Your task to perform on an android device: Play the last video I watched on Youtube Image 0: 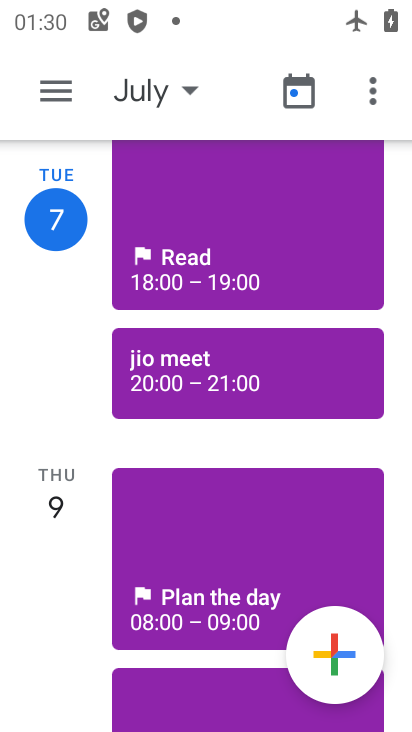
Step 0: press home button
Your task to perform on an android device: Play the last video I watched on Youtube Image 1: 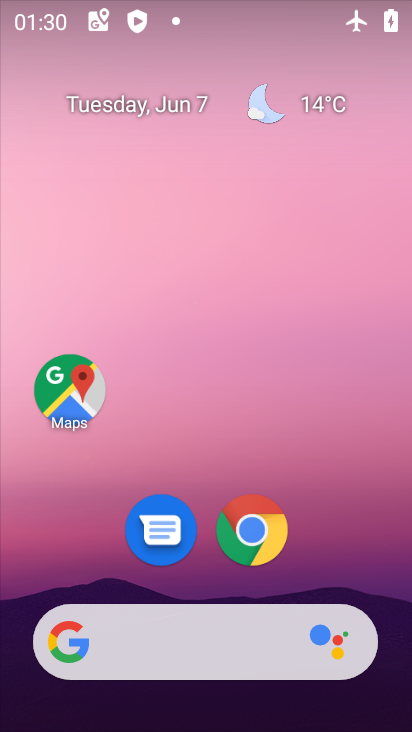
Step 1: drag from (244, 616) to (256, 235)
Your task to perform on an android device: Play the last video I watched on Youtube Image 2: 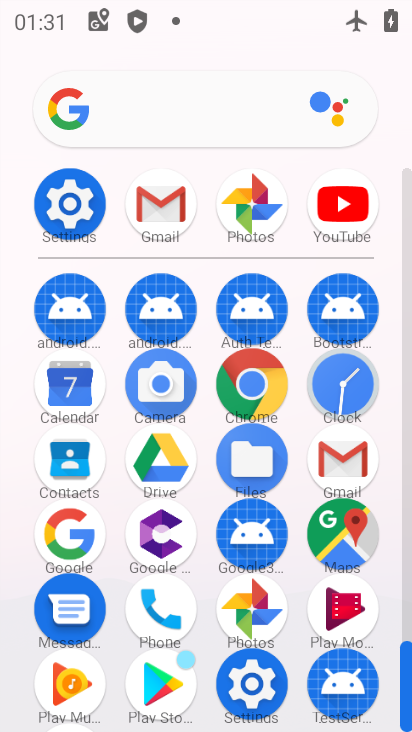
Step 2: drag from (261, 633) to (269, 314)
Your task to perform on an android device: Play the last video I watched on Youtube Image 3: 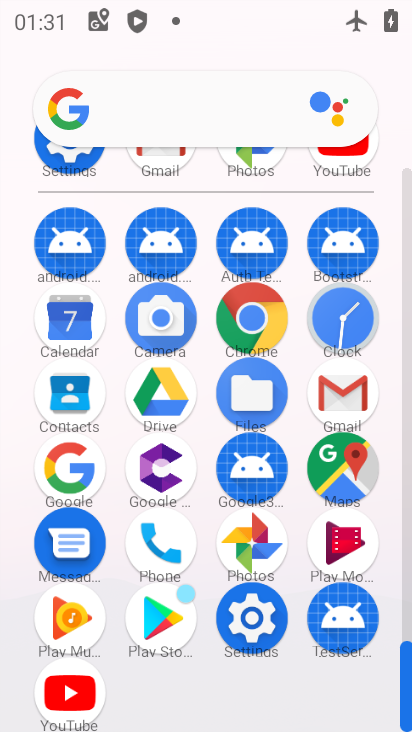
Step 3: click (84, 681)
Your task to perform on an android device: Play the last video I watched on Youtube Image 4: 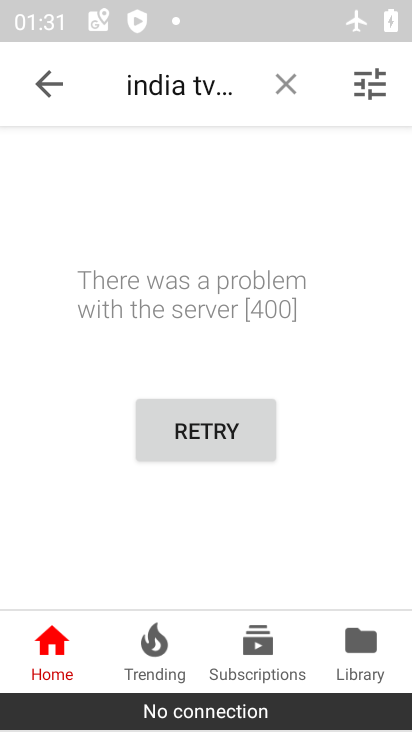
Step 4: task complete